Your task to perform on an android device: Open sound settings Image 0: 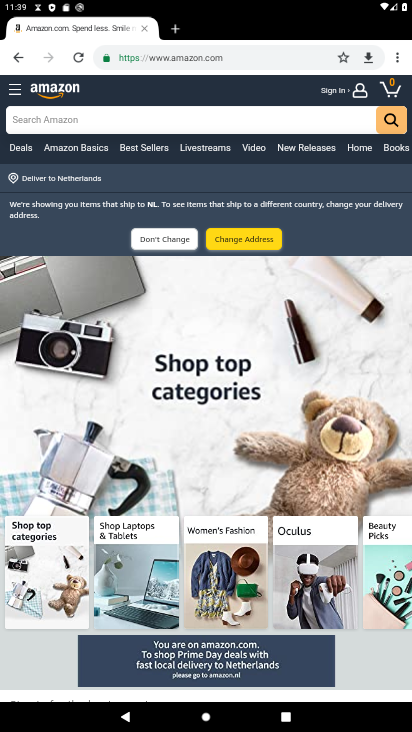
Step 0: press home button
Your task to perform on an android device: Open sound settings Image 1: 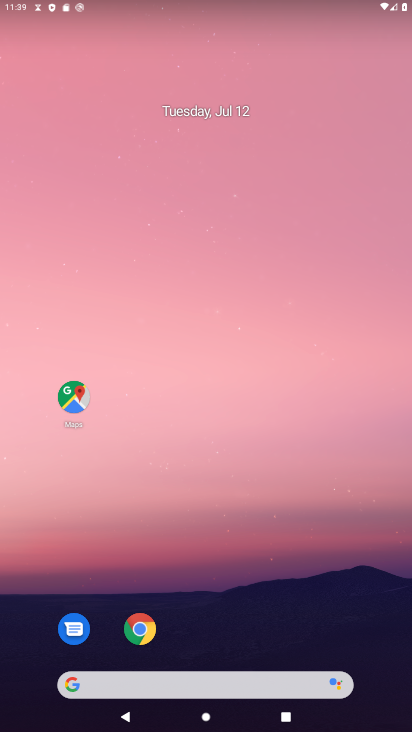
Step 1: drag from (253, 601) to (378, 0)
Your task to perform on an android device: Open sound settings Image 2: 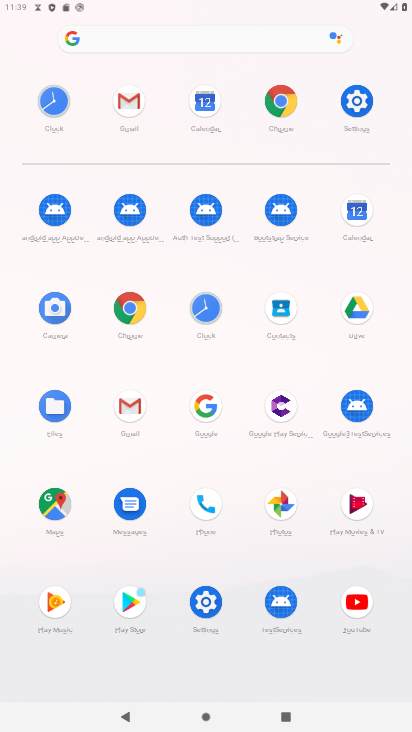
Step 2: click (371, 97)
Your task to perform on an android device: Open sound settings Image 3: 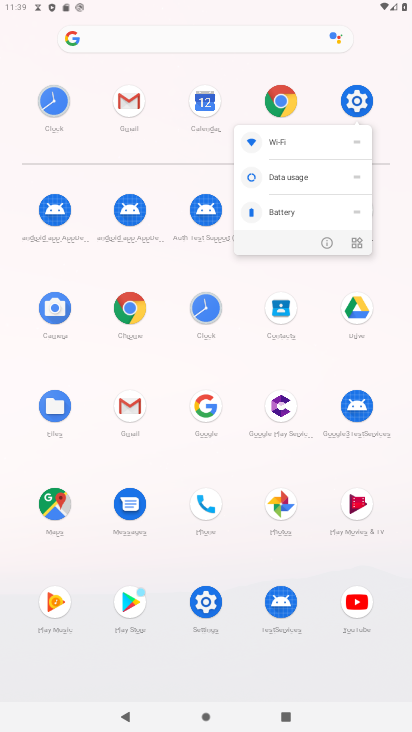
Step 3: click (372, 97)
Your task to perform on an android device: Open sound settings Image 4: 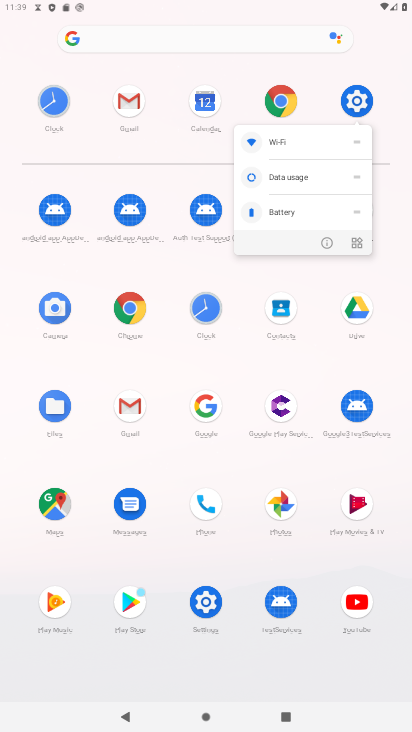
Step 4: click (354, 106)
Your task to perform on an android device: Open sound settings Image 5: 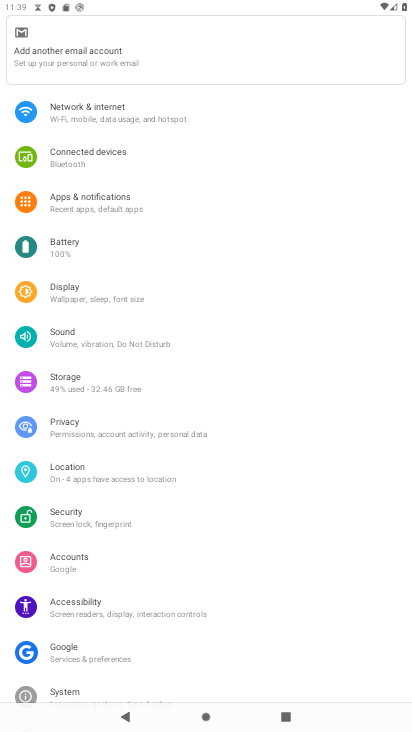
Step 5: click (96, 344)
Your task to perform on an android device: Open sound settings Image 6: 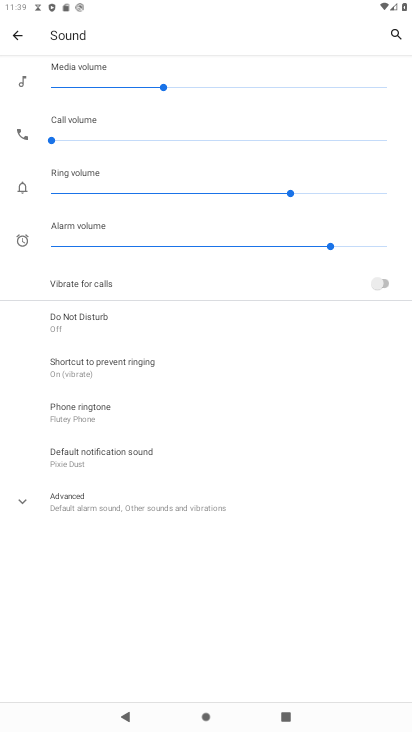
Step 6: task complete